Your task to perform on an android device: Open settings on Google Maps Image 0: 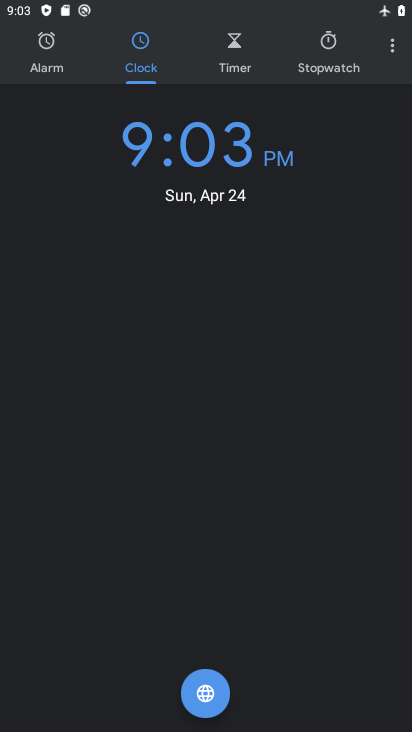
Step 0: press home button
Your task to perform on an android device: Open settings on Google Maps Image 1: 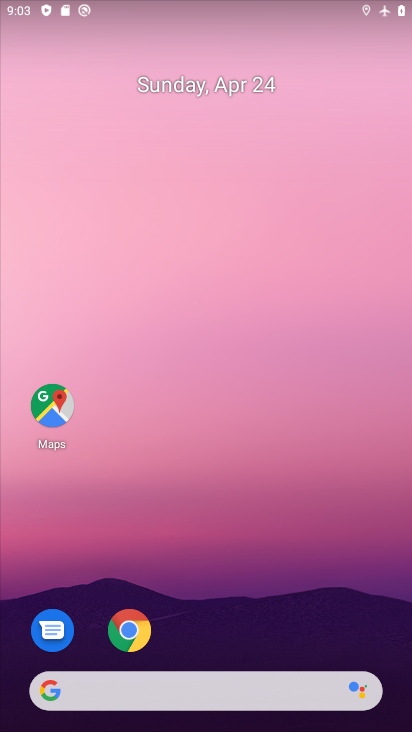
Step 1: click (51, 407)
Your task to perform on an android device: Open settings on Google Maps Image 2: 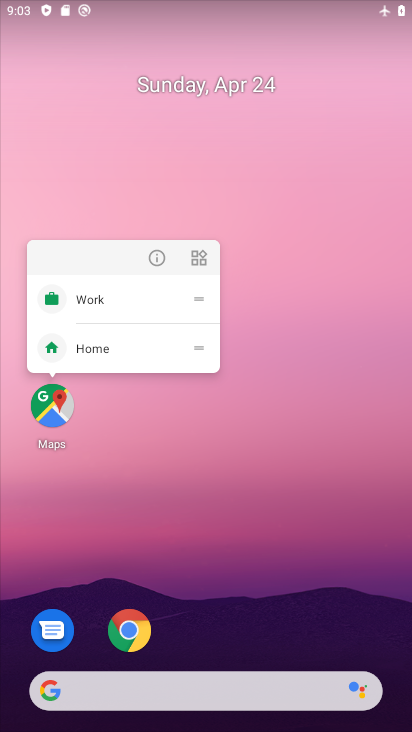
Step 2: click (46, 410)
Your task to perform on an android device: Open settings on Google Maps Image 3: 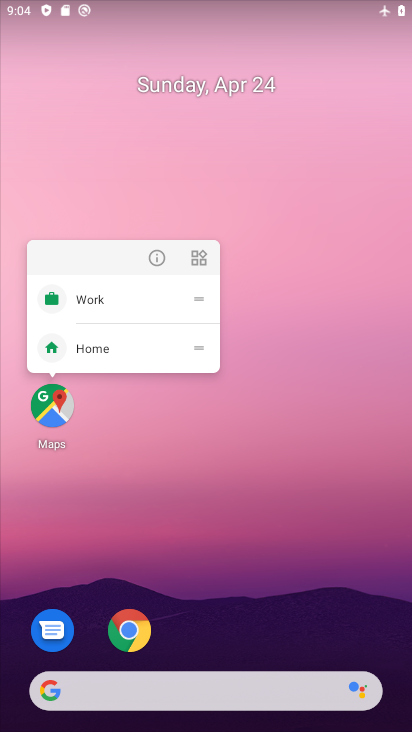
Step 3: click (163, 257)
Your task to perform on an android device: Open settings on Google Maps Image 4: 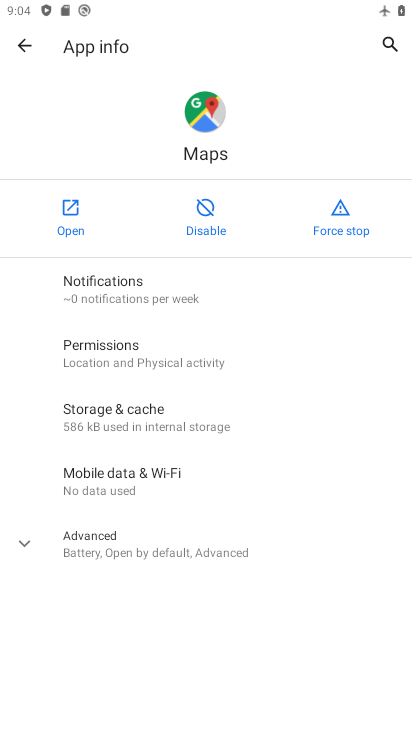
Step 4: click (65, 217)
Your task to perform on an android device: Open settings on Google Maps Image 5: 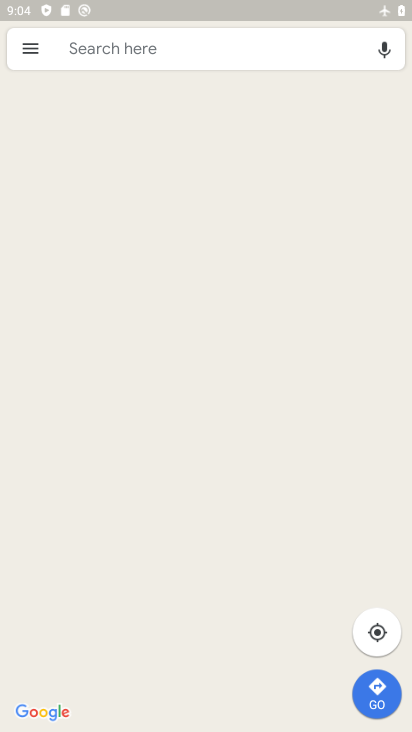
Step 5: click (22, 50)
Your task to perform on an android device: Open settings on Google Maps Image 6: 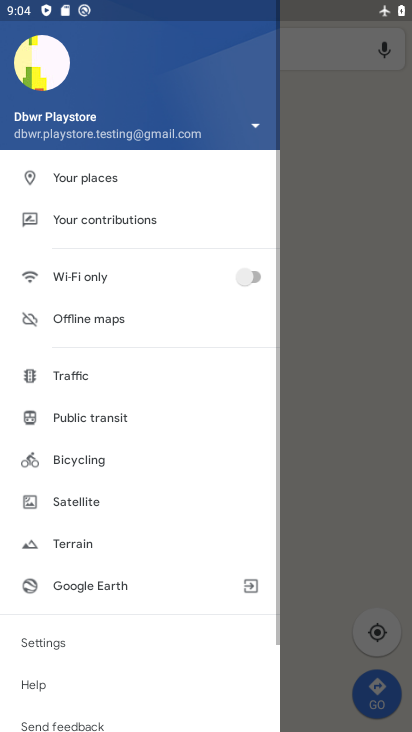
Step 6: click (69, 637)
Your task to perform on an android device: Open settings on Google Maps Image 7: 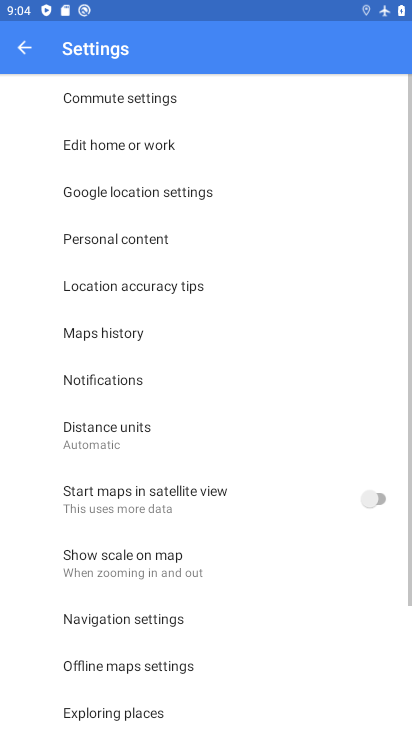
Step 7: task complete